Your task to perform on an android device: What's on my calendar today? Image 0: 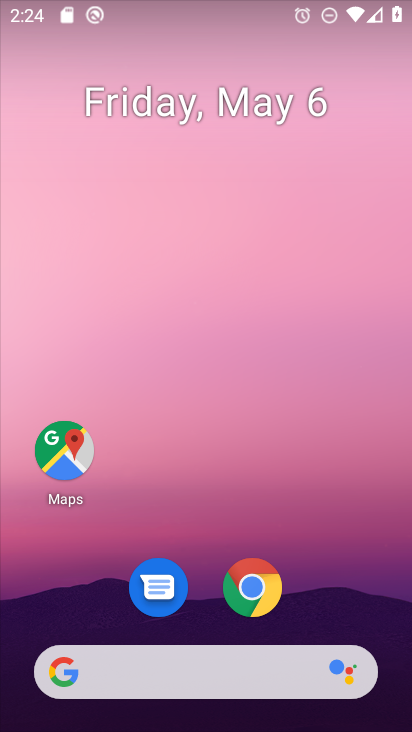
Step 0: drag from (310, 564) to (411, 82)
Your task to perform on an android device: What's on my calendar today? Image 1: 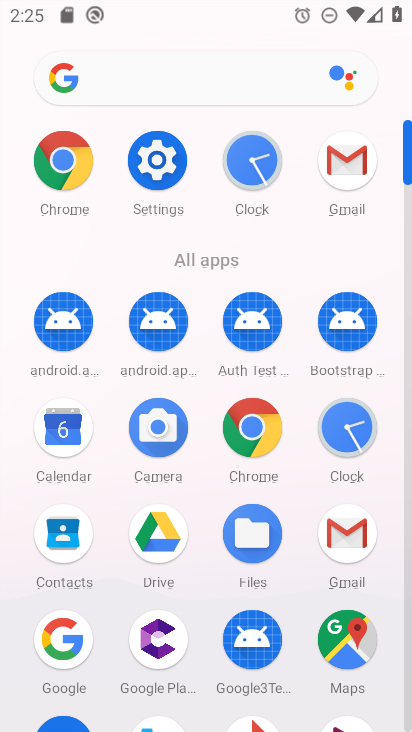
Step 1: click (64, 428)
Your task to perform on an android device: What's on my calendar today? Image 2: 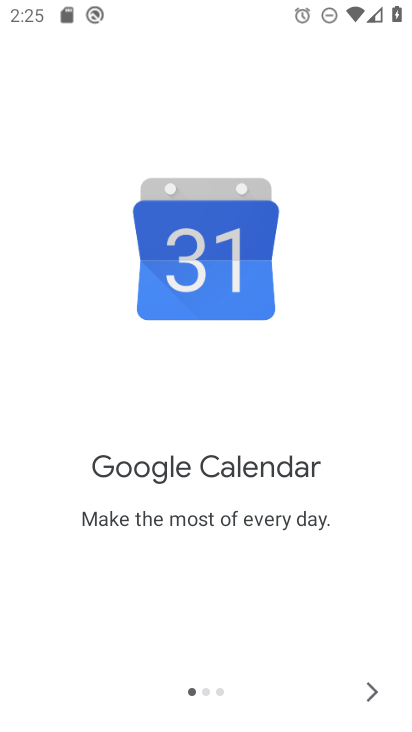
Step 2: click (359, 687)
Your task to perform on an android device: What's on my calendar today? Image 3: 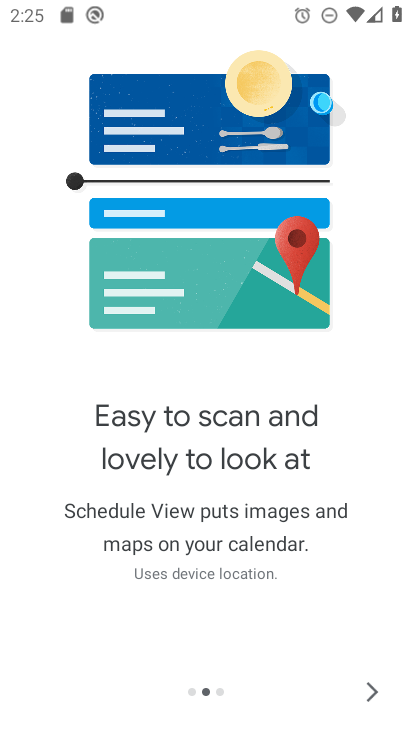
Step 3: click (359, 687)
Your task to perform on an android device: What's on my calendar today? Image 4: 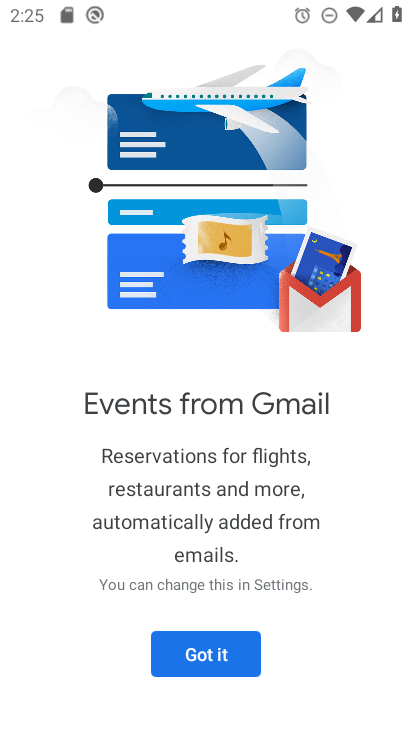
Step 4: click (237, 653)
Your task to perform on an android device: What's on my calendar today? Image 5: 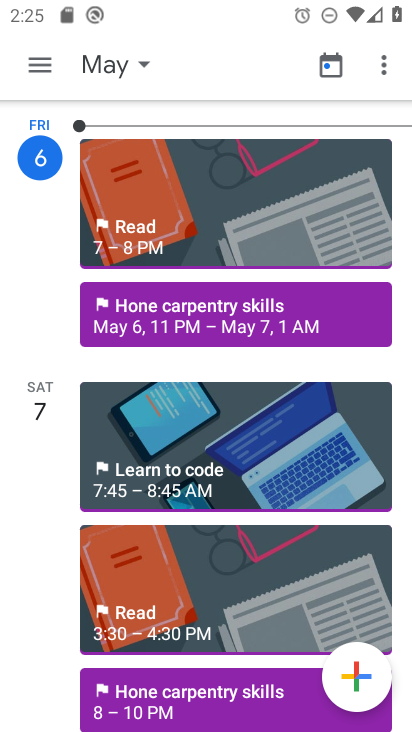
Step 5: task complete